Your task to perform on an android device: Open CNN.com Image 0: 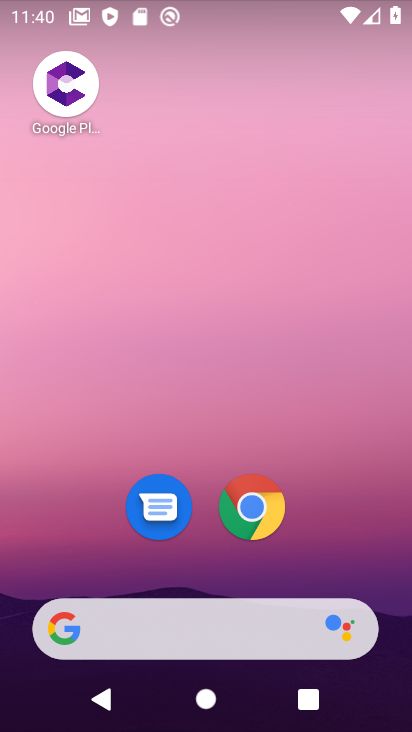
Step 0: click (250, 515)
Your task to perform on an android device: Open CNN.com Image 1: 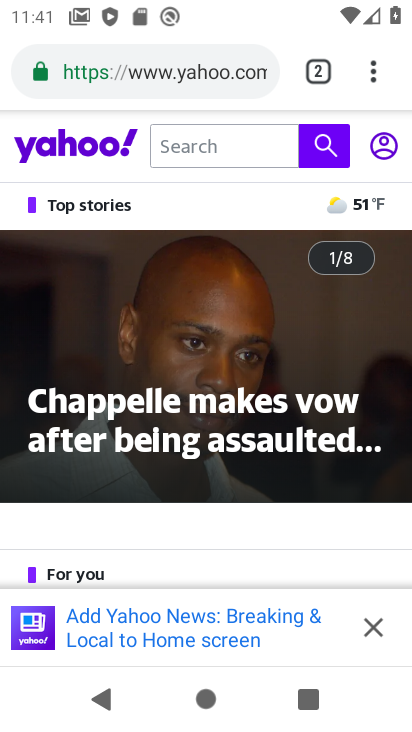
Step 1: click (373, 72)
Your task to perform on an android device: Open CNN.com Image 2: 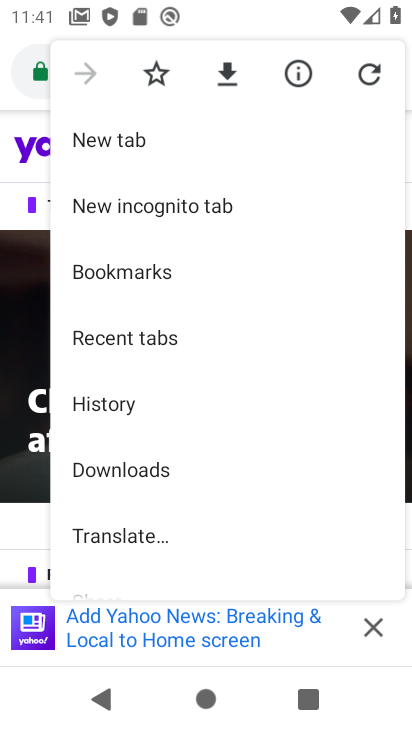
Step 2: click (116, 134)
Your task to perform on an android device: Open CNN.com Image 3: 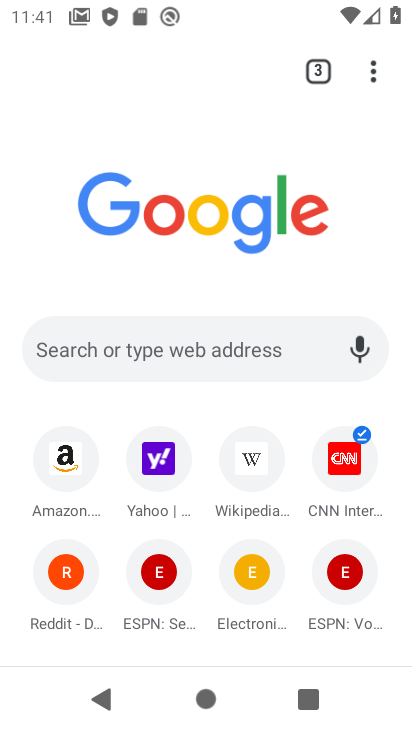
Step 3: click (107, 336)
Your task to perform on an android device: Open CNN.com Image 4: 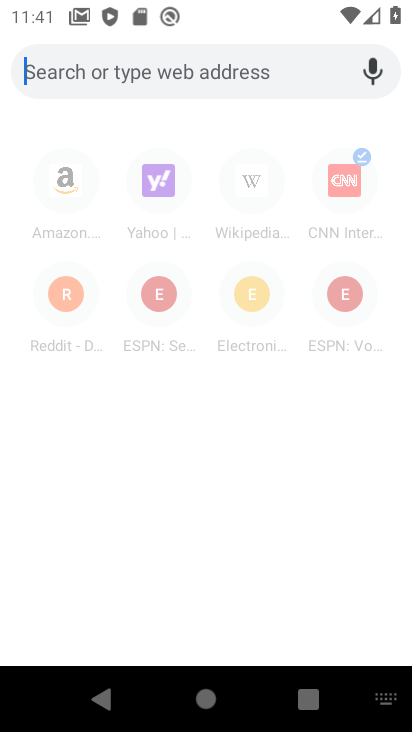
Step 4: type "cnn.com"
Your task to perform on an android device: Open CNN.com Image 5: 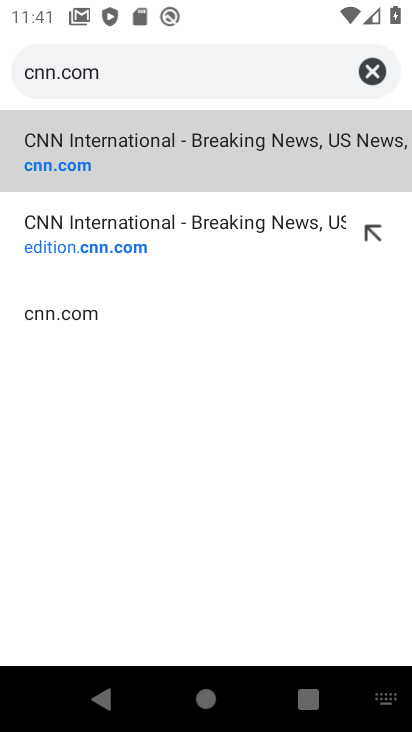
Step 5: click (111, 166)
Your task to perform on an android device: Open CNN.com Image 6: 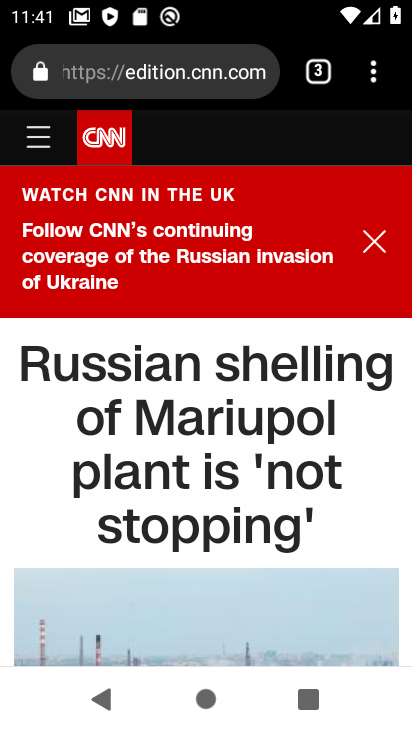
Step 6: task complete